Your task to perform on an android device: delete a single message in the gmail app Image 0: 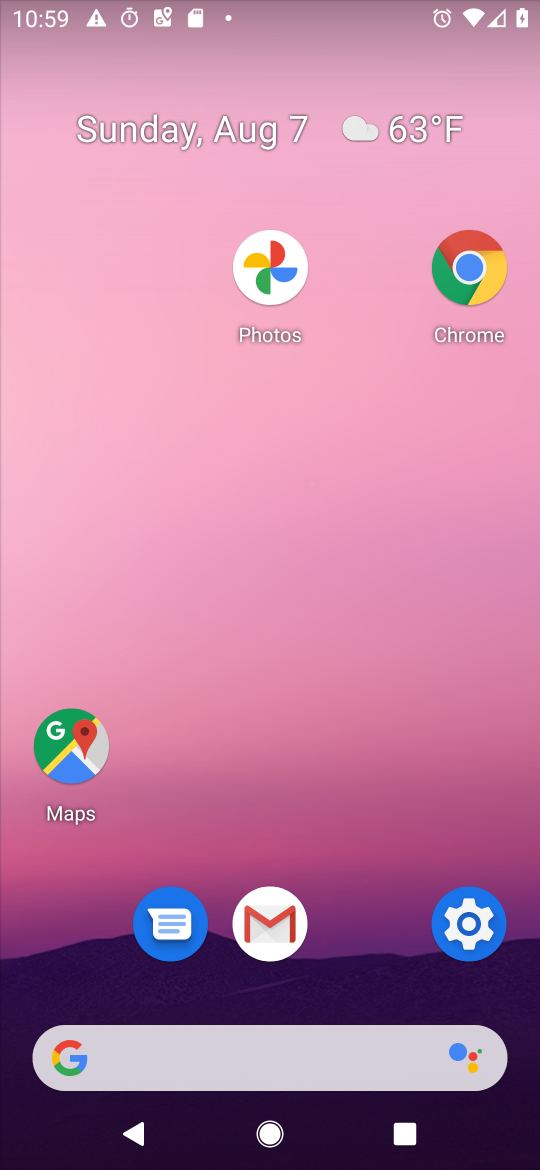
Step 0: press home button
Your task to perform on an android device: delete a single message in the gmail app Image 1: 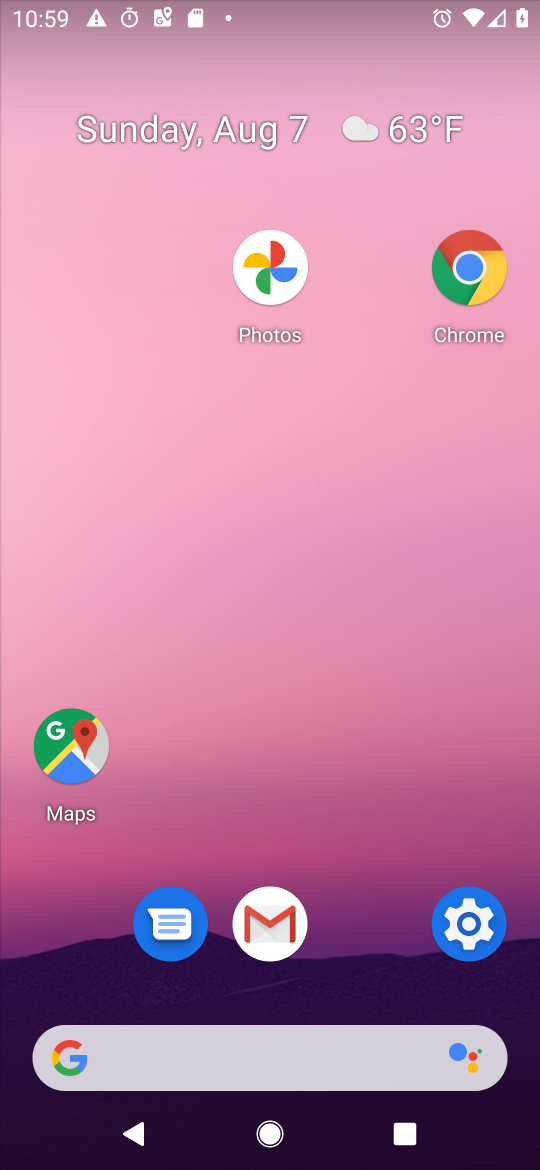
Step 1: click (245, 901)
Your task to perform on an android device: delete a single message in the gmail app Image 2: 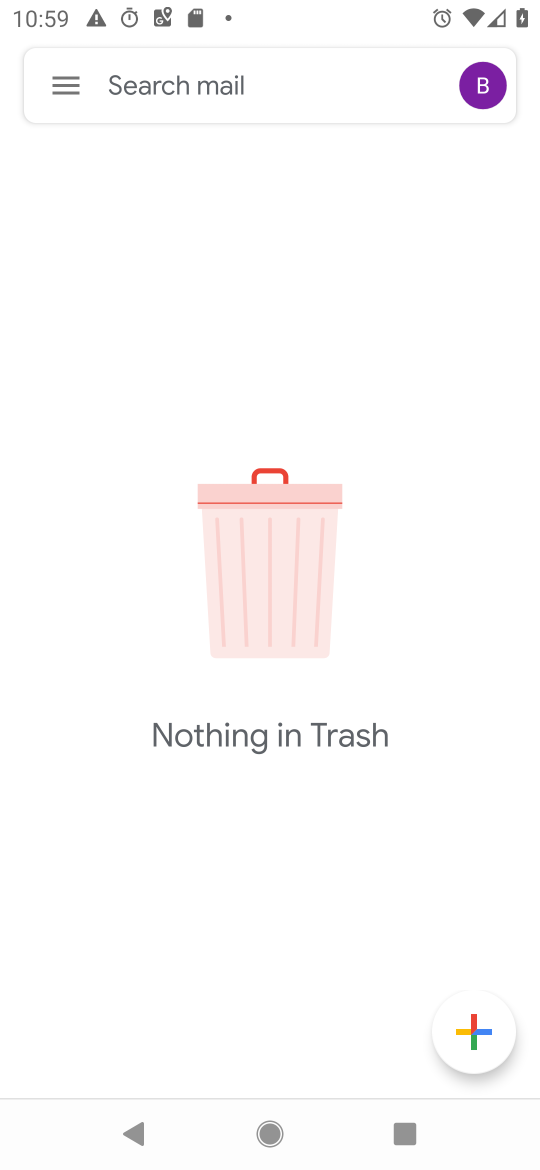
Step 2: click (58, 83)
Your task to perform on an android device: delete a single message in the gmail app Image 3: 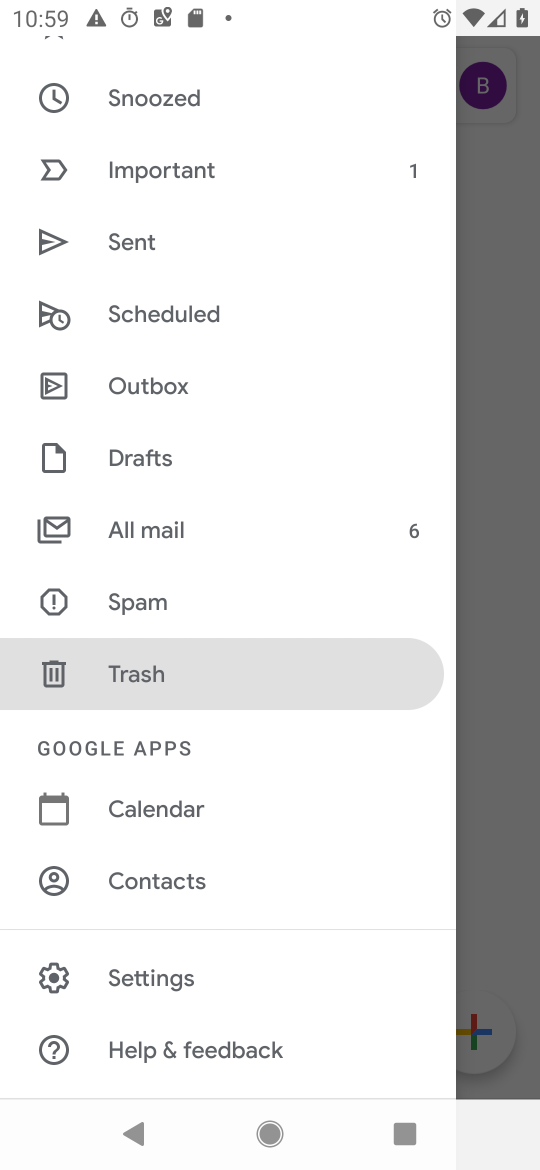
Step 3: click (166, 533)
Your task to perform on an android device: delete a single message in the gmail app Image 4: 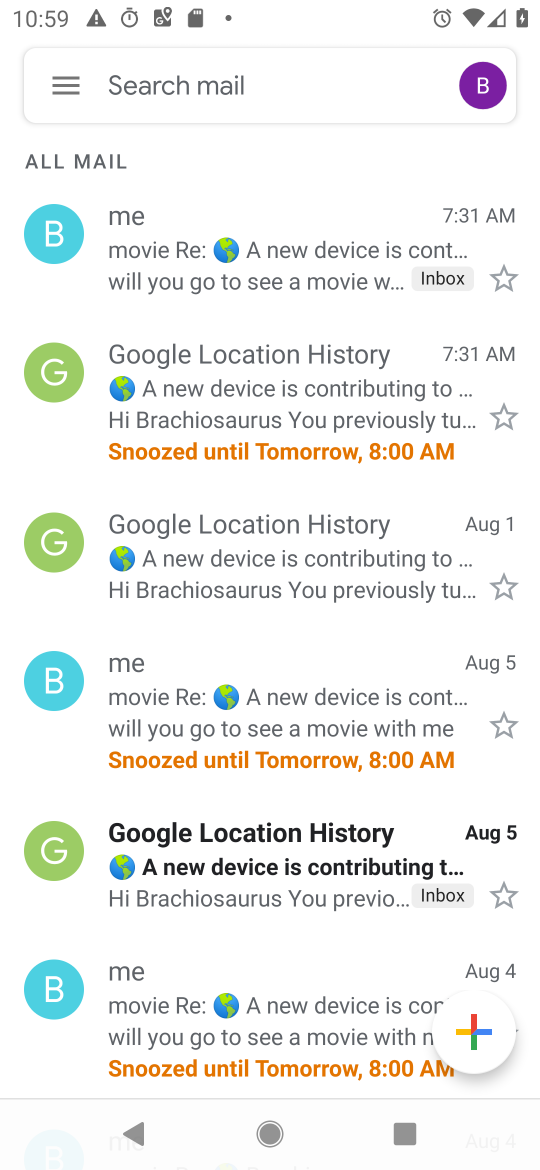
Step 4: click (267, 246)
Your task to perform on an android device: delete a single message in the gmail app Image 5: 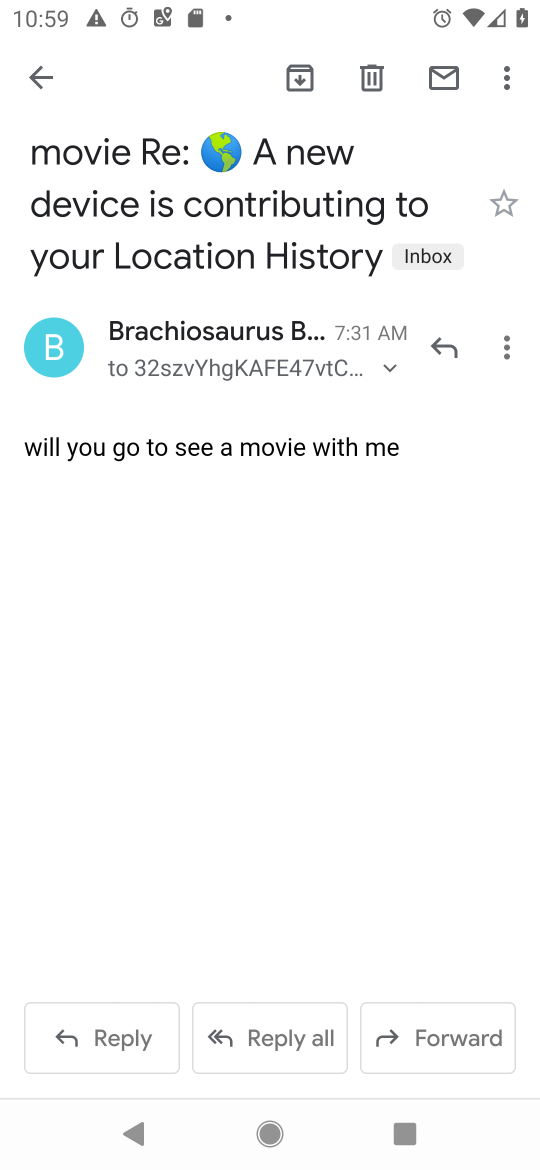
Step 5: click (372, 75)
Your task to perform on an android device: delete a single message in the gmail app Image 6: 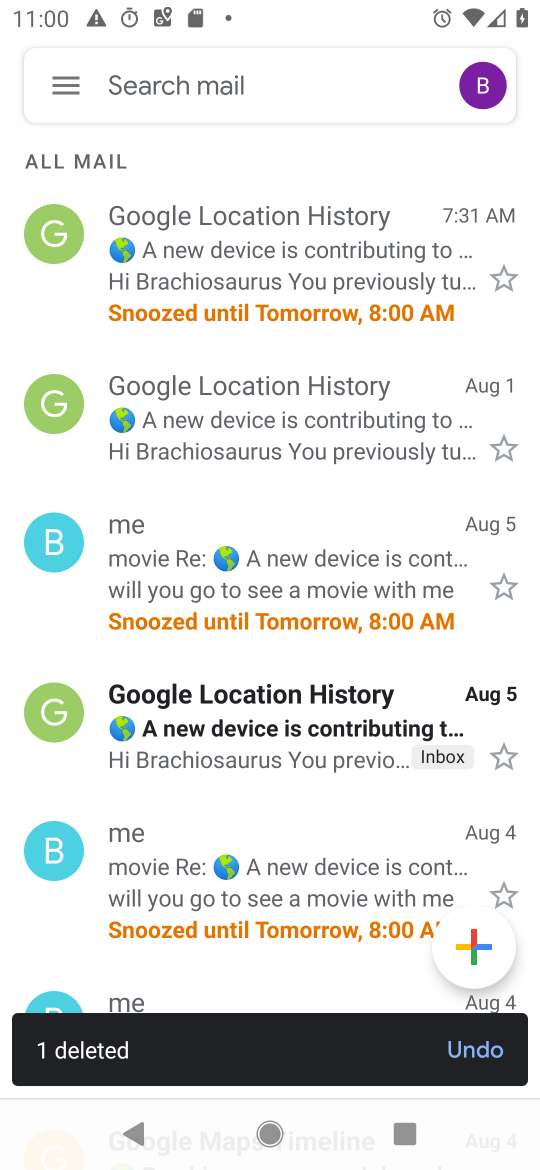
Step 6: task complete